Your task to perform on an android device: Open Maps and search for coffee Image 0: 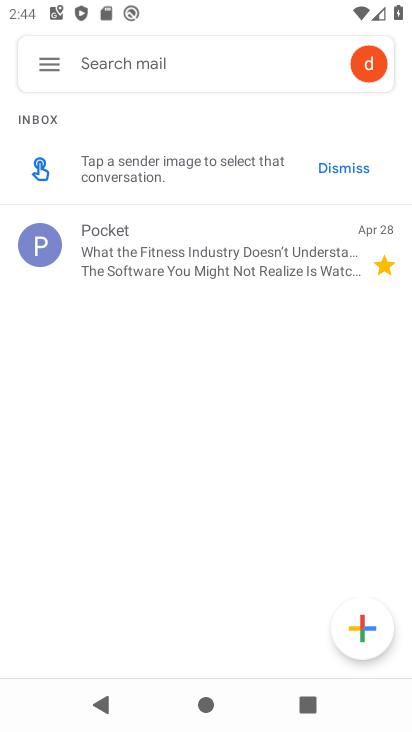
Step 0: press home button
Your task to perform on an android device: Open Maps and search for coffee Image 1: 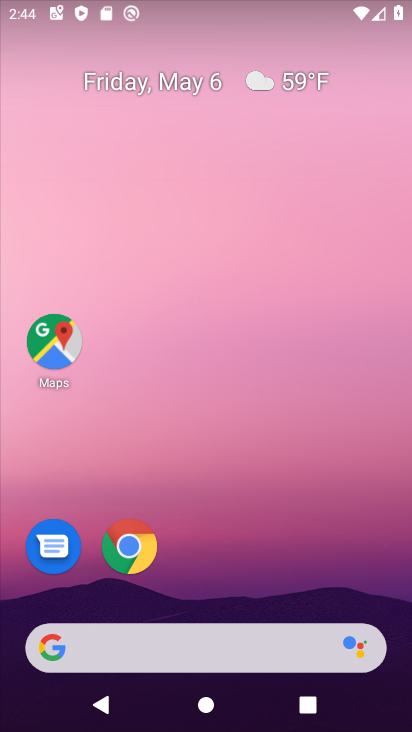
Step 1: click (51, 337)
Your task to perform on an android device: Open Maps and search for coffee Image 2: 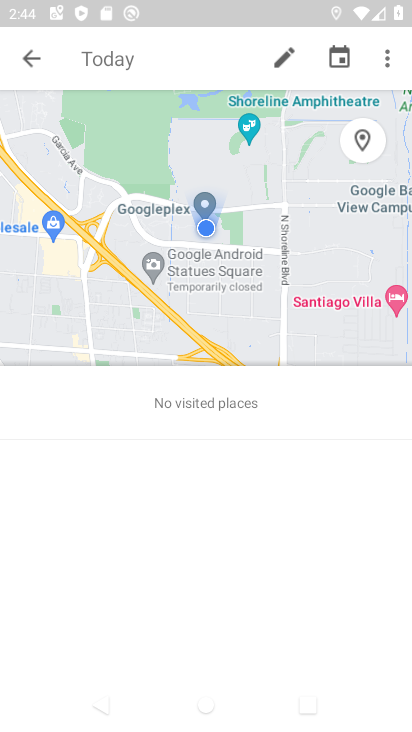
Step 2: click (20, 55)
Your task to perform on an android device: Open Maps and search for coffee Image 3: 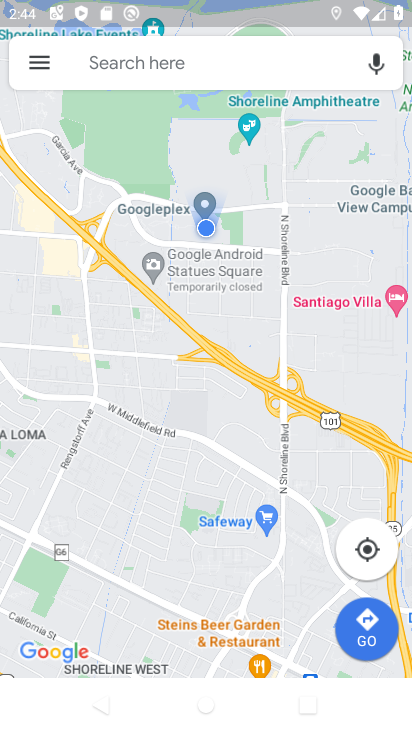
Step 3: click (220, 72)
Your task to perform on an android device: Open Maps and search for coffee Image 4: 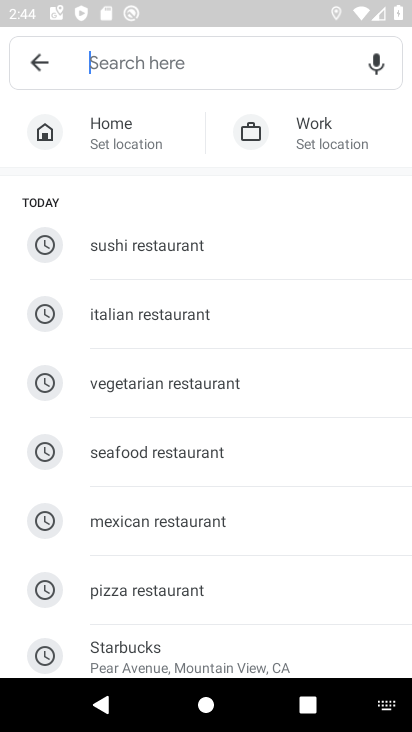
Step 4: type "coffee"
Your task to perform on an android device: Open Maps and search for coffee Image 5: 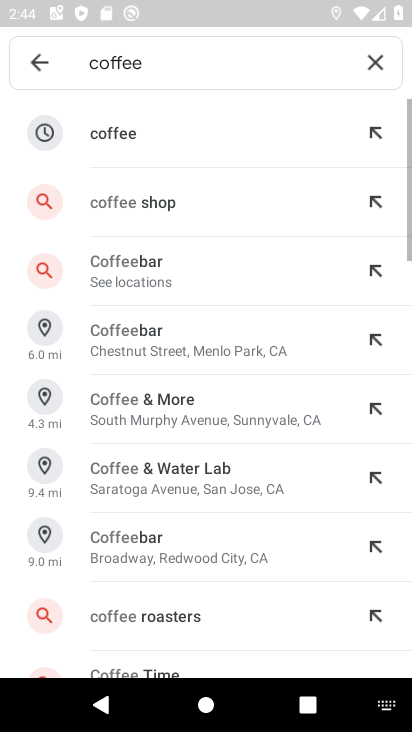
Step 5: click (133, 141)
Your task to perform on an android device: Open Maps and search for coffee Image 6: 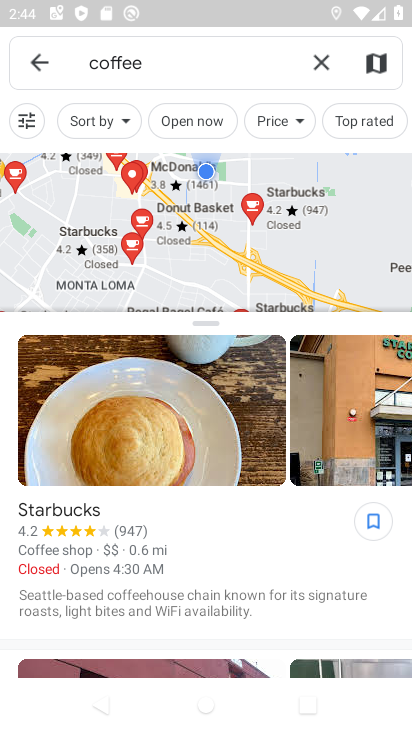
Step 6: task complete